Your task to perform on an android device: turn off smart reply in the gmail app Image 0: 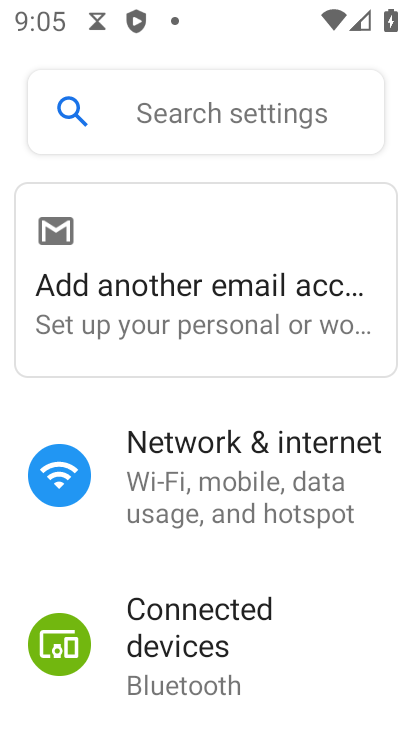
Step 0: drag from (208, 561) to (213, 218)
Your task to perform on an android device: turn off smart reply in the gmail app Image 1: 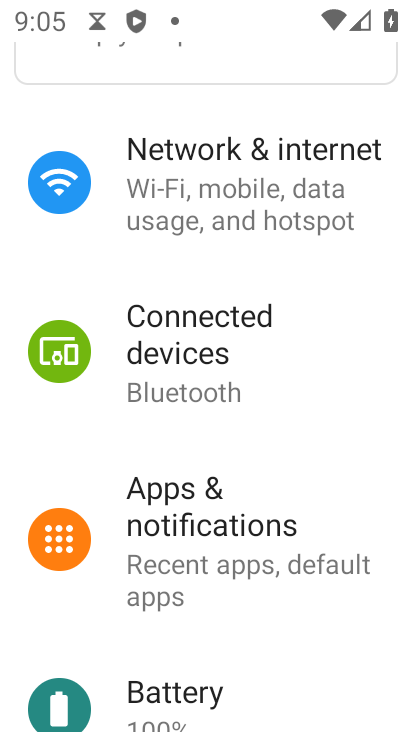
Step 1: drag from (213, 492) to (138, 34)
Your task to perform on an android device: turn off smart reply in the gmail app Image 2: 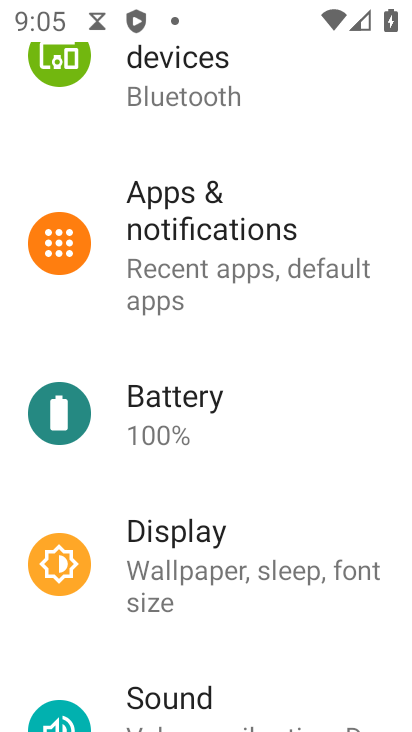
Step 2: drag from (270, 561) to (258, 98)
Your task to perform on an android device: turn off smart reply in the gmail app Image 3: 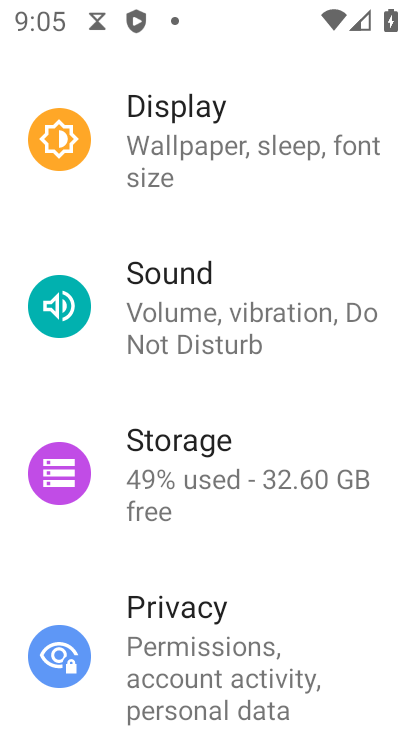
Step 3: drag from (245, 467) to (245, 41)
Your task to perform on an android device: turn off smart reply in the gmail app Image 4: 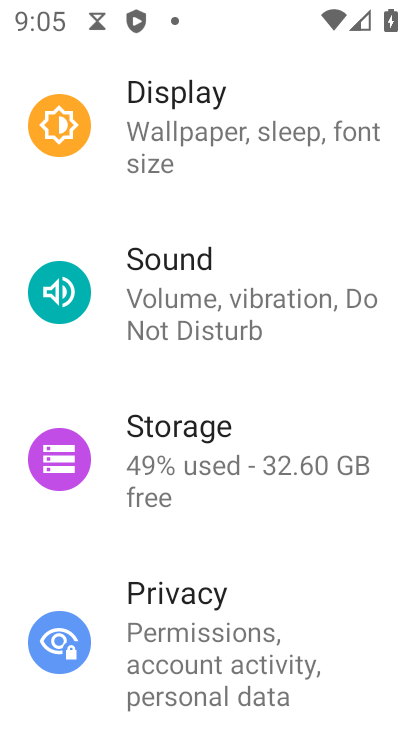
Step 4: press back button
Your task to perform on an android device: turn off smart reply in the gmail app Image 5: 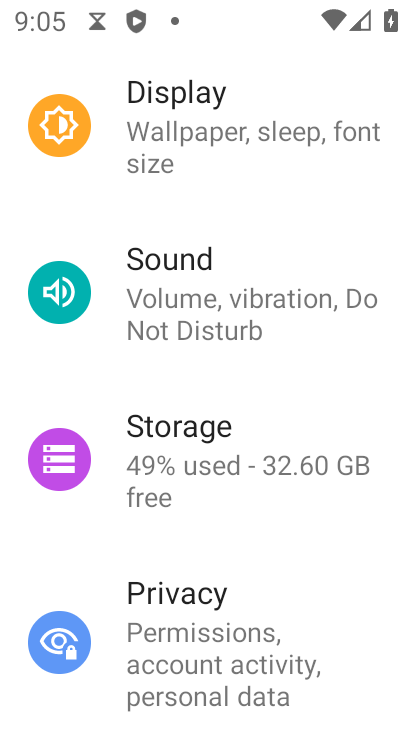
Step 5: press back button
Your task to perform on an android device: turn off smart reply in the gmail app Image 6: 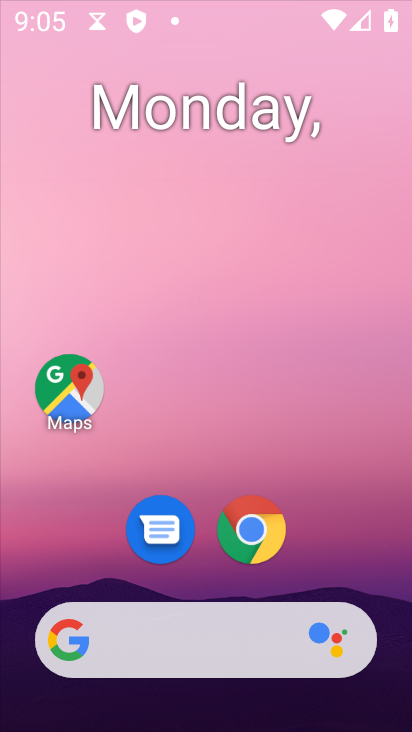
Step 6: press back button
Your task to perform on an android device: turn off smart reply in the gmail app Image 7: 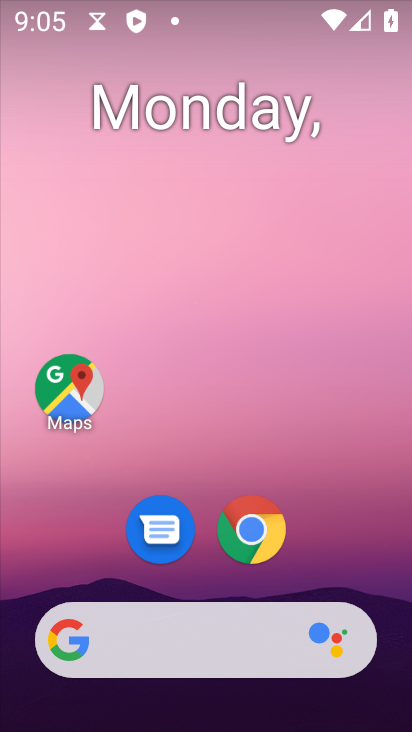
Step 7: drag from (214, 529) to (240, 351)
Your task to perform on an android device: turn off smart reply in the gmail app Image 8: 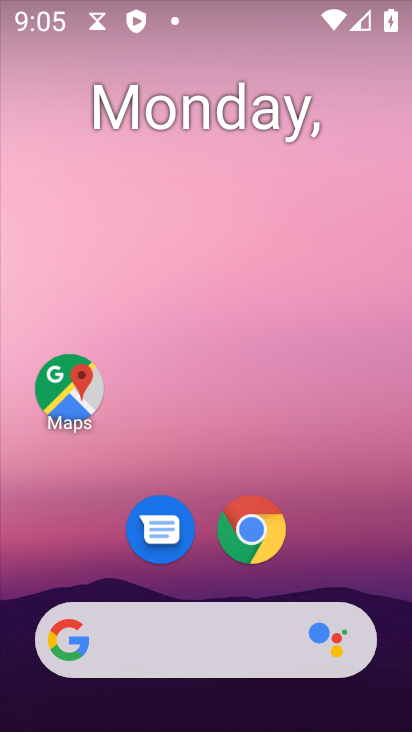
Step 8: drag from (290, 509) to (246, 342)
Your task to perform on an android device: turn off smart reply in the gmail app Image 9: 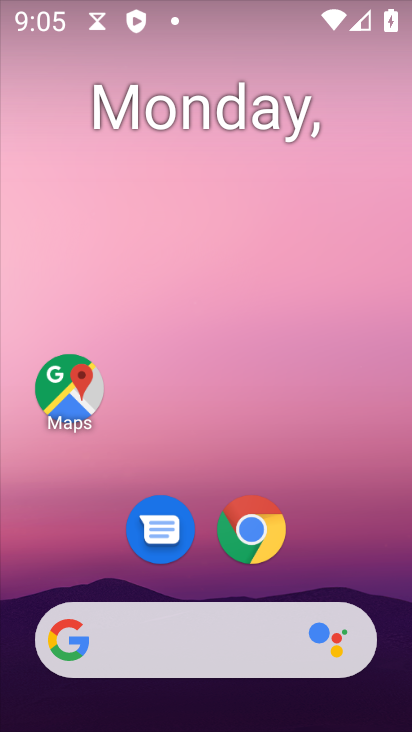
Step 9: drag from (199, 457) to (199, 150)
Your task to perform on an android device: turn off smart reply in the gmail app Image 10: 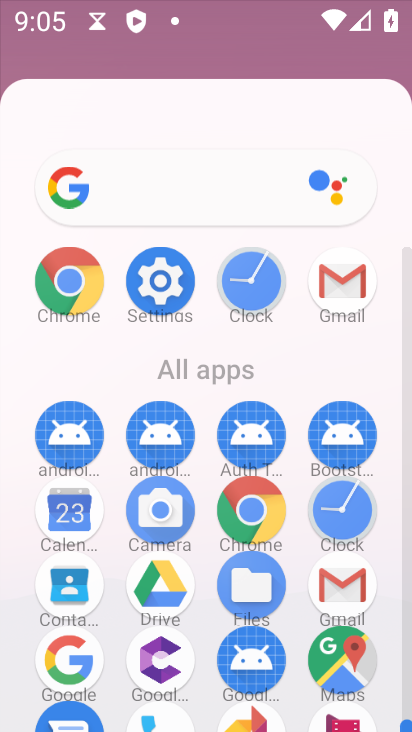
Step 10: drag from (222, 621) to (165, 260)
Your task to perform on an android device: turn off smart reply in the gmail app Image 11: 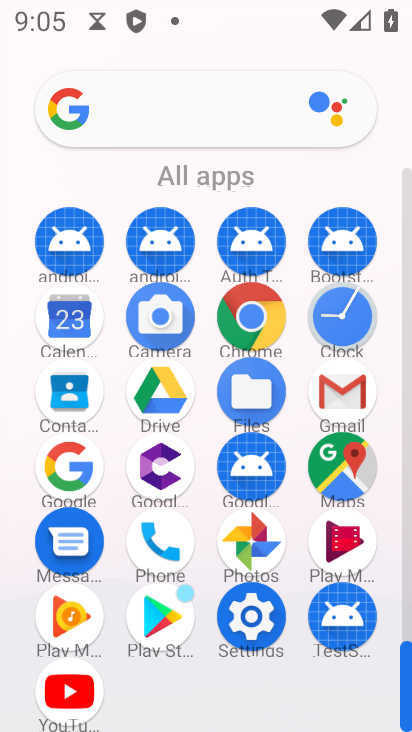
Step 11: click (328, 401)
Your task to perform on an android device: turn off smart reply in the gmail app Image 12: 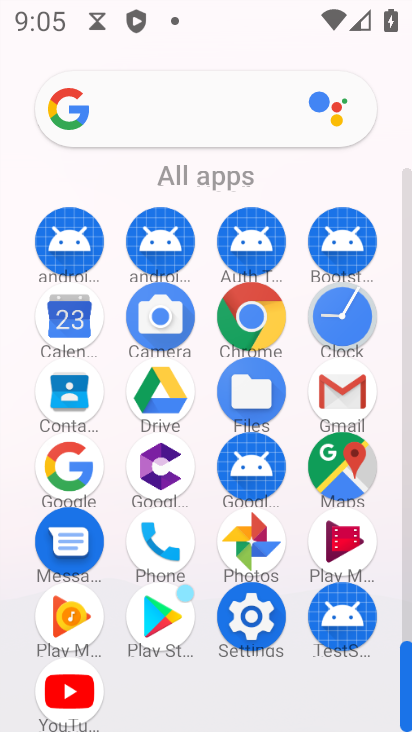
Step 12: click (328, 401)
Your task to perform on an android device: turn off smart reply in the gmail app Image 13: 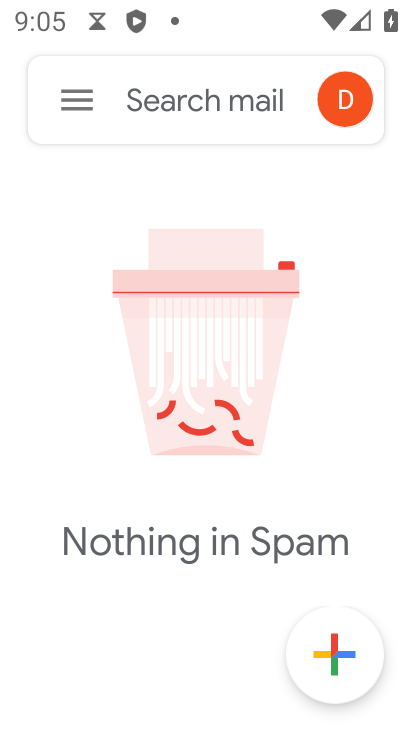
Step 13: click (74, 88)
Your task to perform on an android device: turn off smart reply in the gmail app Image 14: 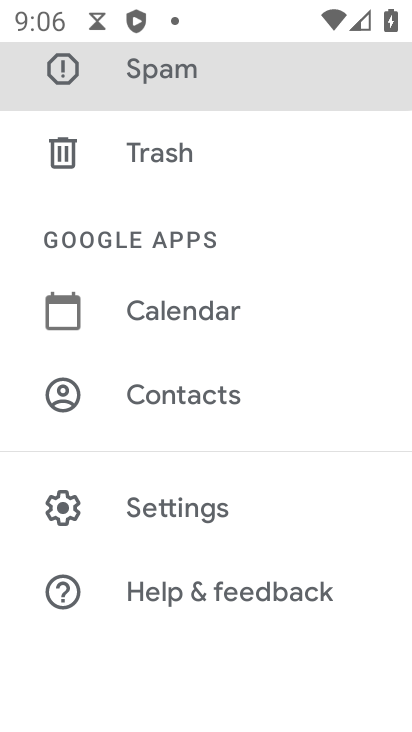
Step 14: press home button
Your task to perform on an android device: turn off smart reply in the gmail app Image 15: 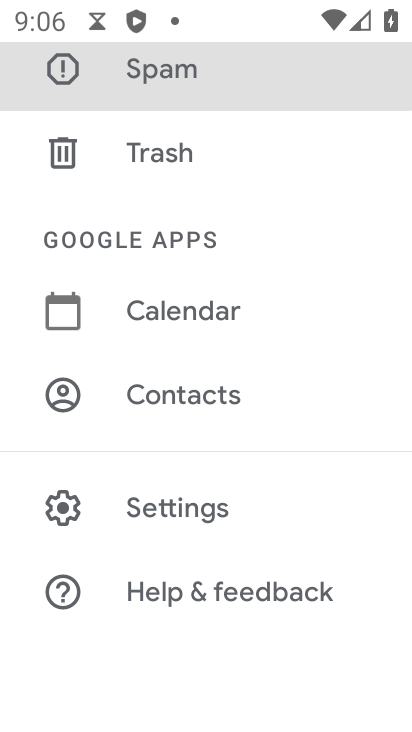
Step 15: press home button
Your task to perform on an android device: turn off smart reply in the gmail app Image 16: 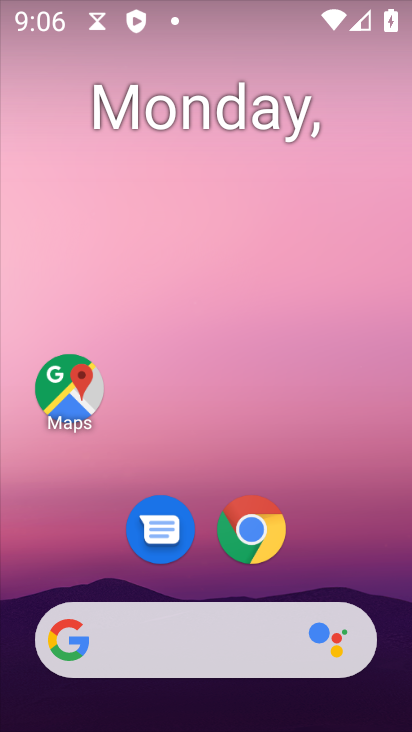
Step 16: drag from (197, 579) to (195, 157)
Your task to perform on an android device: turn off smart reply in the gmail app Image 17: 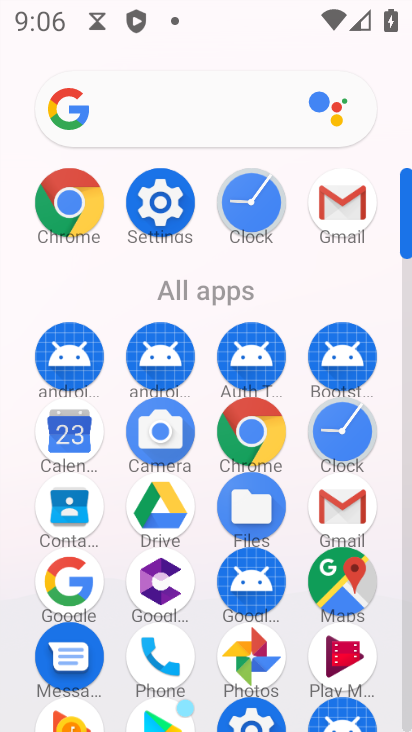
Step 17: click (323, 504)
Your task to perform on an android device: turn off smart reply in the gmail app Image 18: 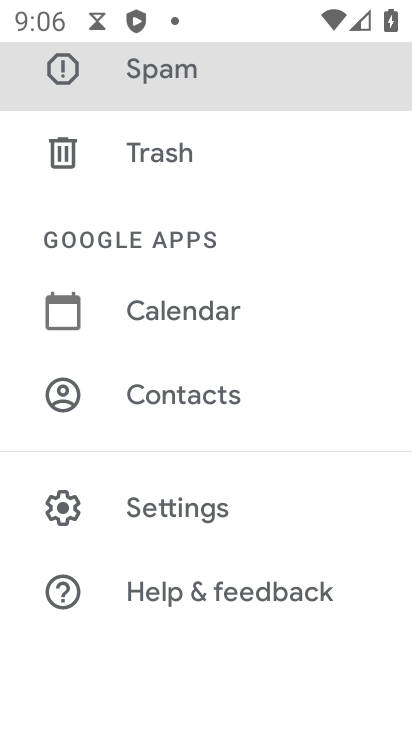
Step 18: drag from (179, 221) to (205, 394)
Your task to perform on an android device: turn off smart reply in the gmail app Image 19: 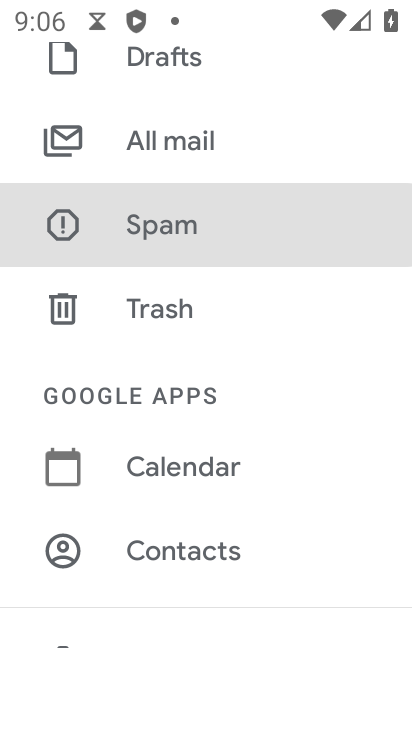
Step 19: drag from (183, 185) to (242, 442)
Your task to perform on an android device: turn off smart reply in the gmail app Image 20: 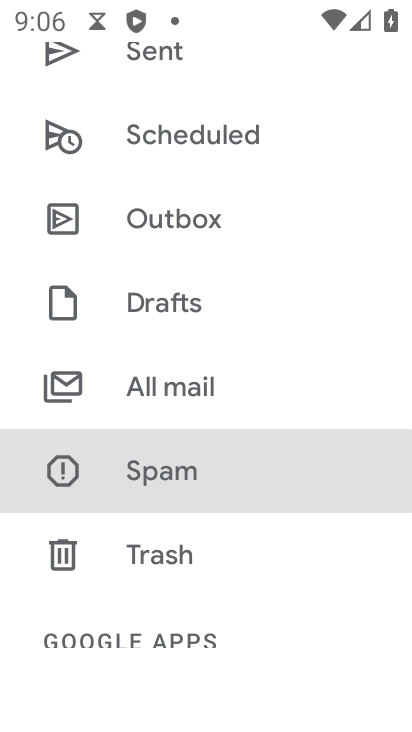
Step 20: drag from (201, 252) to (211, 566)
Your task to perform on an android device: turn off smart reply in the gmail app Image 21: 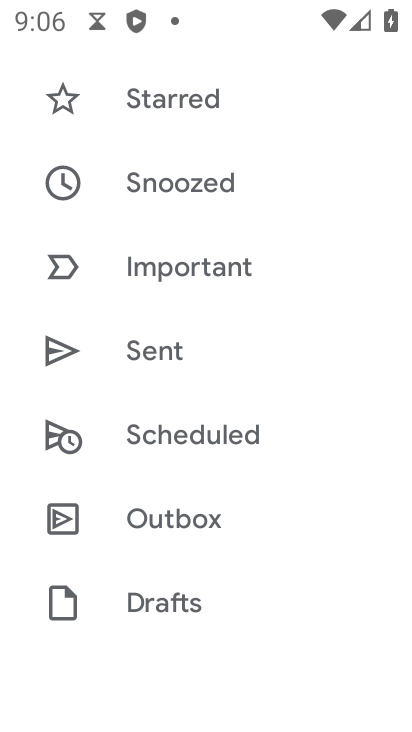
Step 21: drag from (167, 284) to (266, 731)
Your task to perform on an android device: turn off smart reply in the gmail app Image 22: 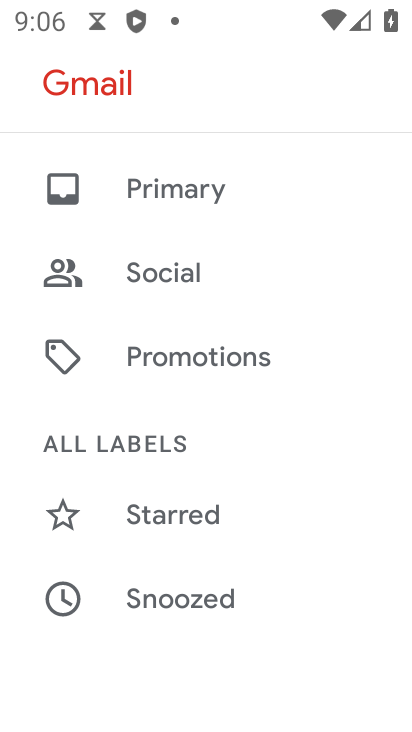
Step 22: drag from (196, 206) to (193, 578)
Your task to perform on an android device: turn off smart reply in the gmail app Image 23: 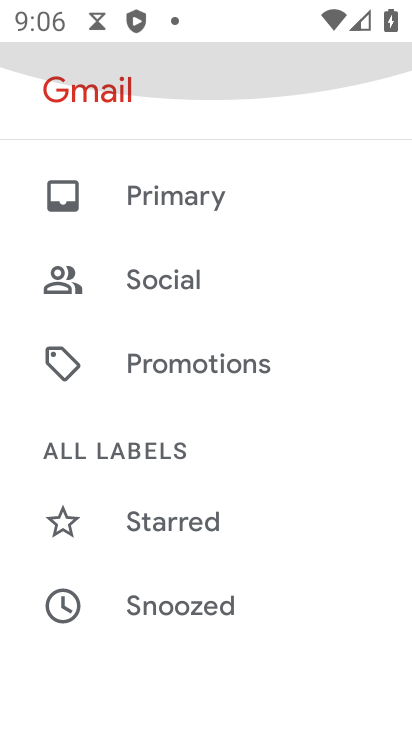
Step 23: drag from (150, 248) to (183, 560)
Your task to perform on an android device: turn off smart reply in the gmail app Image 24: 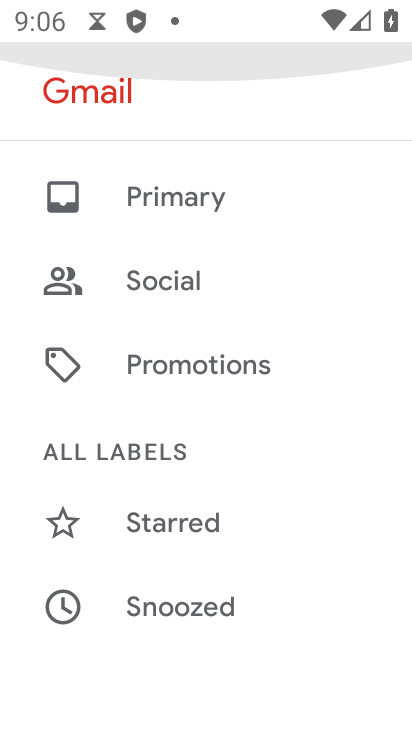
Step 24: drag from (160, 225) to (177, 632)
Your task to perform on an android device: turn off smart reply in the gmail app Image 25: 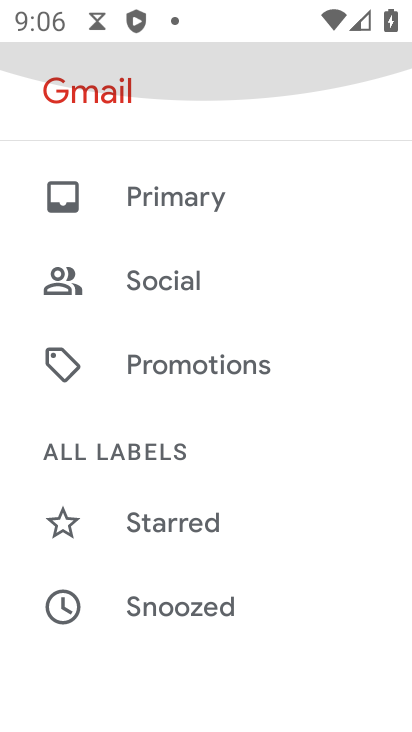
Step 25: drag from (108, 585) to (132, 237)
Your task to perform on an android device: turn off smart reply in the gmail app Image 26: 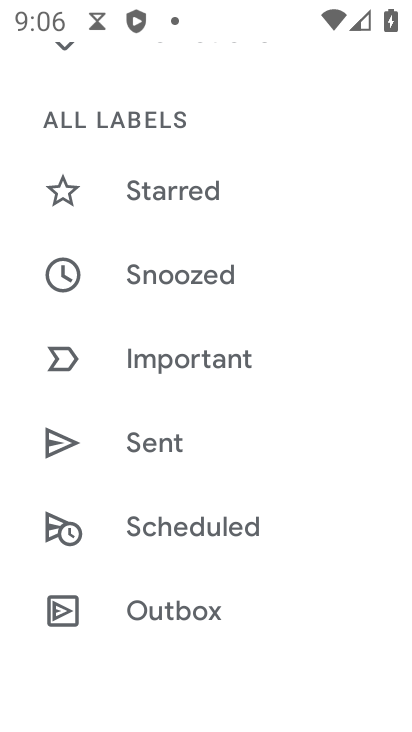
Step 26: drag from (244, 475) to (240, 115)
Your task to perform on an android device: turn off smart reply in the gmail app Image 27: 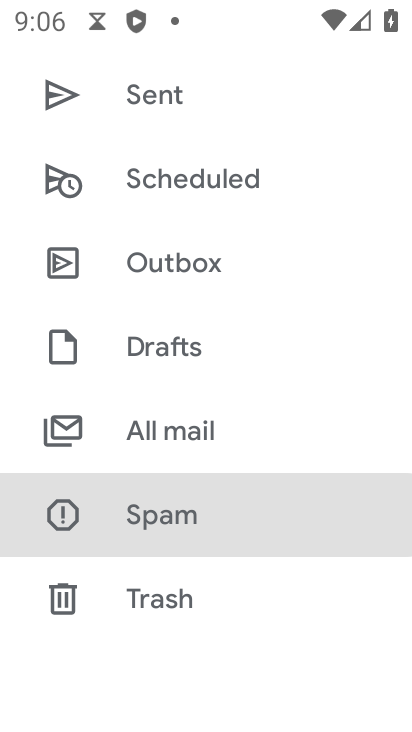
Step 27: drag from (191, 504) to (172, 109)
Your task to perform on an android device: turn off smart reply in the gmail app Image 28: 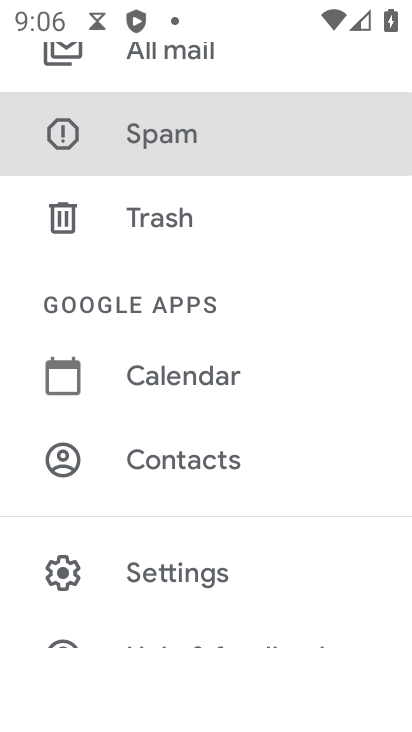
Step 28: click (204, 397)
Your task to perform on an android device: turn off smart reply in the gmail app Image 29: 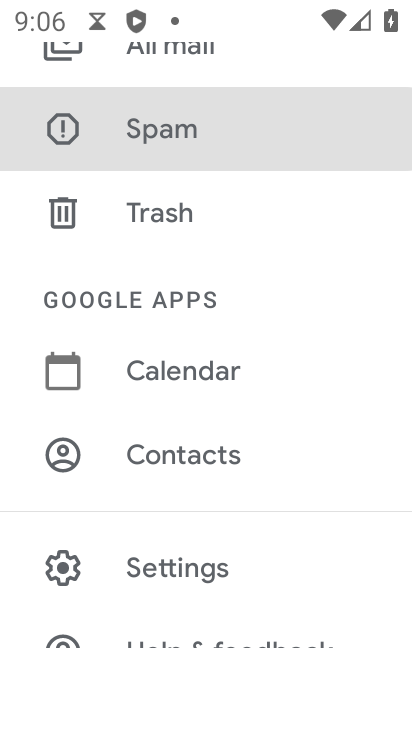
Step 29: drag from (182, 155) to (209, 464)
Your task to perform on an android device: turn off smart reply in the gmail app Image 30: 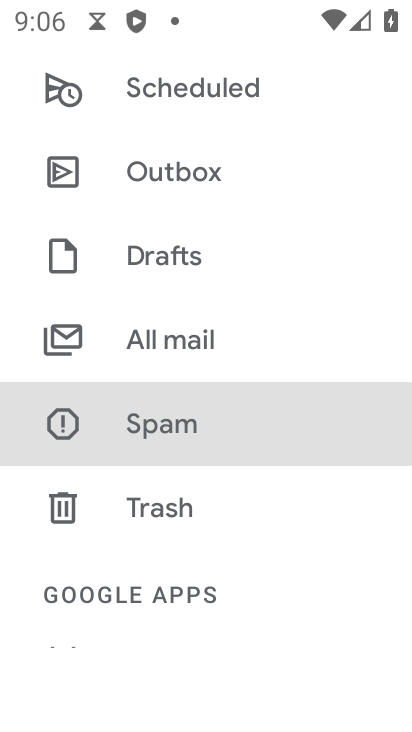
Step 30: click (161, 364)
Your task to perform on an android device: turn off smart reply in the gmail app Image 31: 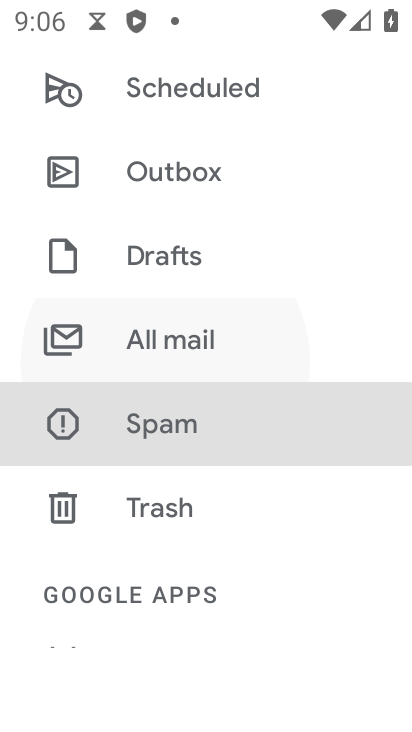
Step 31: click (162, 349)
Your task to perform on an android device: turn off smart reply in the gmail app Image 32: 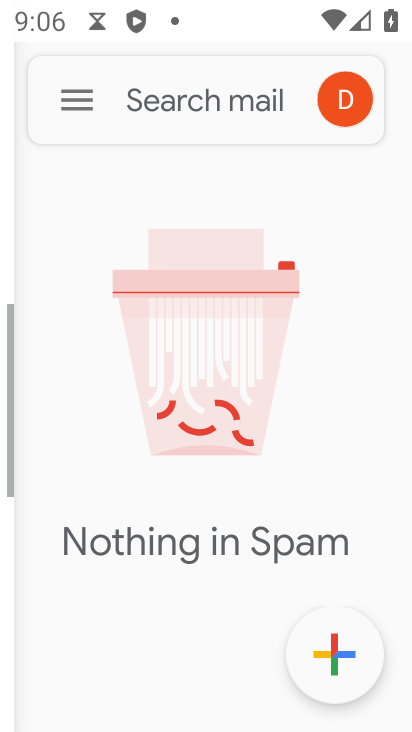
Step 32: click (166, 347)
Your task to perform on an android device: turn off smart reply in the gmail app Image 33: 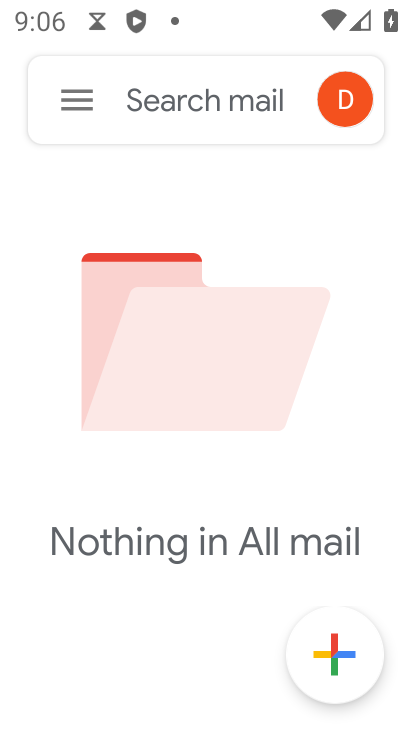
Step 33: click (73, 113)
Your task to perform on an android device: turn off smart reply in the gmail app Image 34: 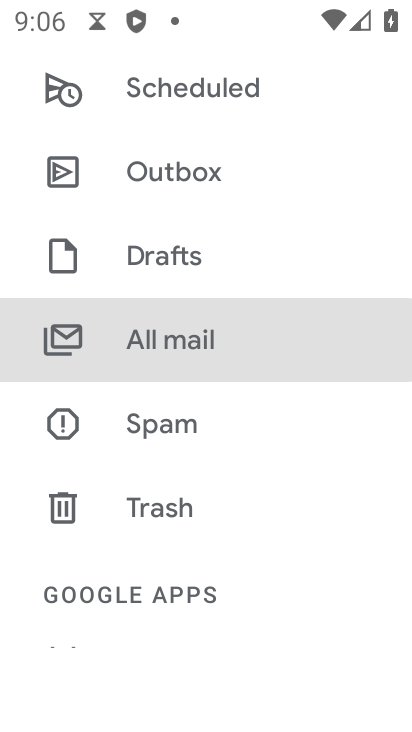
Step 34: drag from (156, 535) to (139, 257)
Your task to perform on an android device: turn off smart reply in the gmail app Image 35: 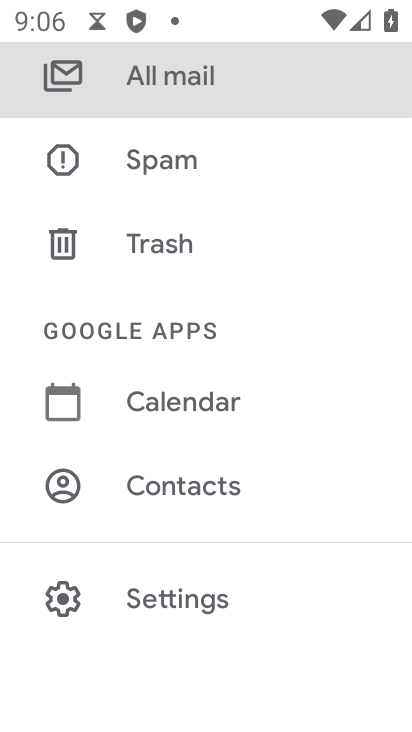
Step 35: click (194, 595)
Your task to perform on an android device: turn off smart reply in the gmail app Image 36: 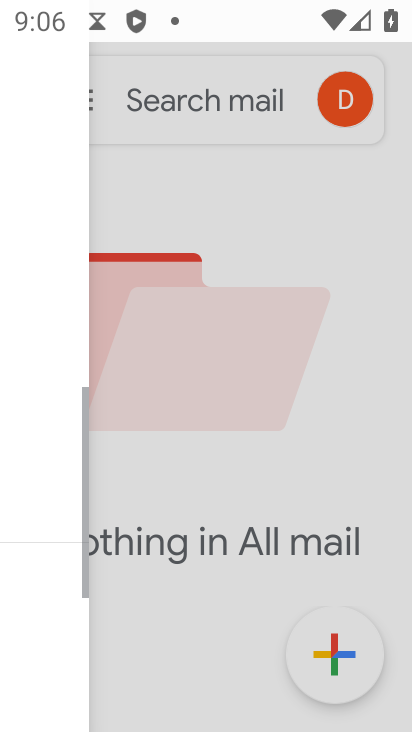
Step 36: click (194, 595)
Your task to perform on an android device: turn off smart reply in the gmail app Image 37: 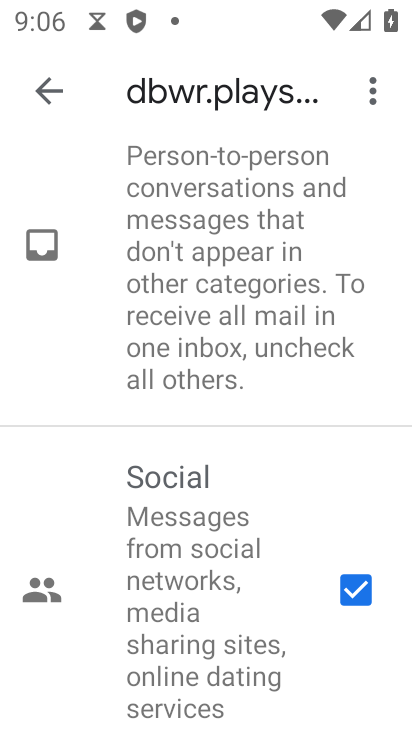
Step 37: drag from (220, 518) to (197, 8)
Your task to perform on an android device: turn off smart reply in the gmail app Image 38: 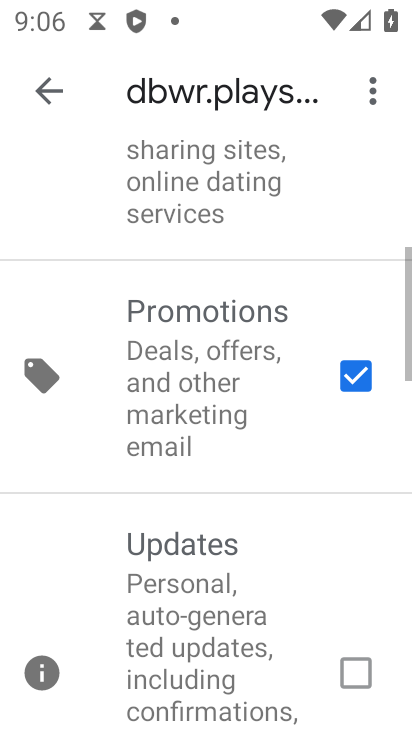
Step 38: drag from (147, 486) to (136, 187)
Your task to perform on an android device: turn off smart reply in the gmail app Image 39: 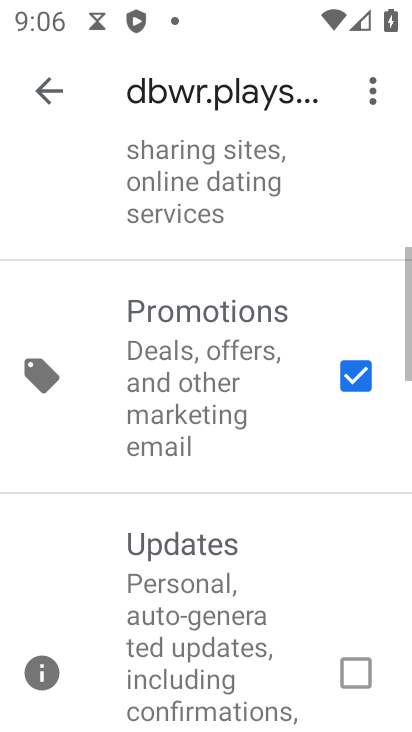
Step 39: drag from (200, 500) to (193, 71)
Your task to perform on an android device: turn off smart reply in the gmail app Image 40: 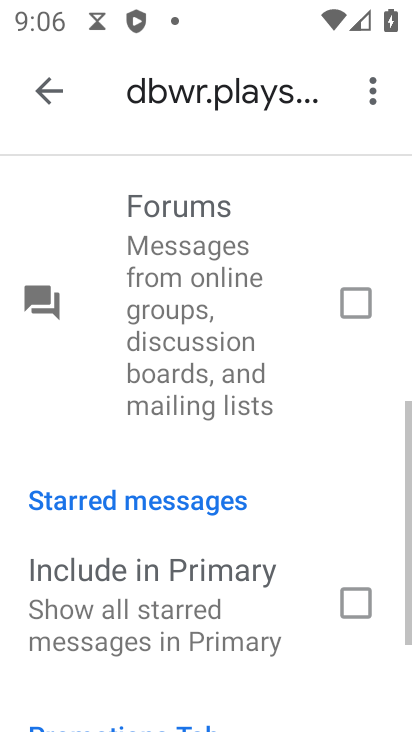
Step 40: drag from (200, 544) to (190, 123)
Your task to perform on an android device: turn off smart reply in the gmail app Image 41: 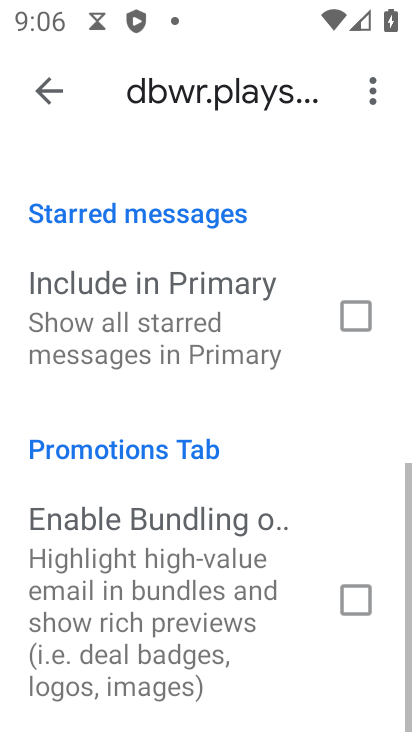
Step 41: drag from (183, 487) to (181, 102)
Your task to perform on an android device: turn off smart reply in the gmail app Image 42: 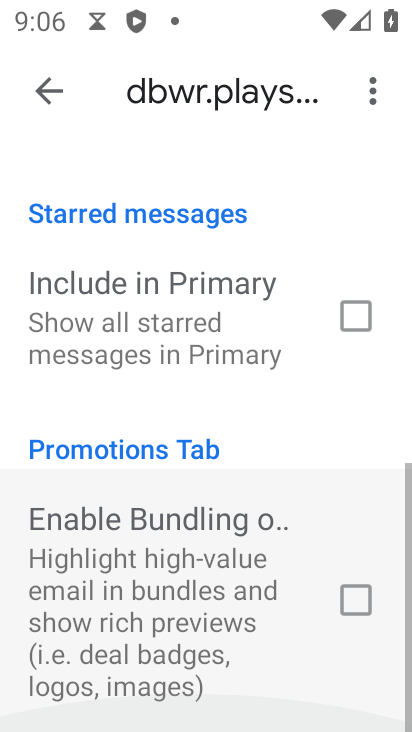
Step 42: drag from (202, 440) to (239, 193)
Your task to perform on an android device: turn off smart reply in the gmail app Image 43: 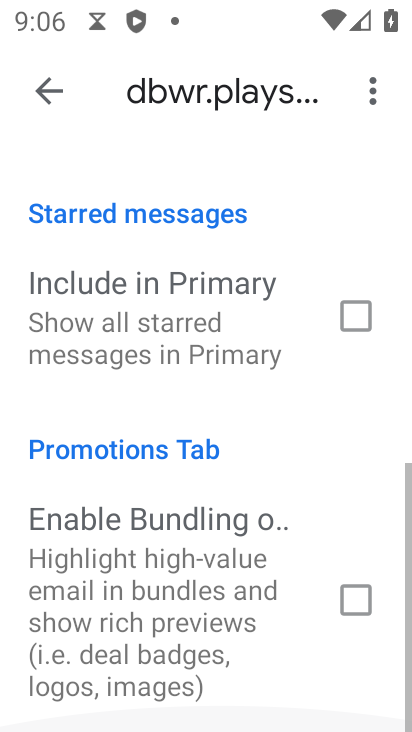
Step 43: drag from (184, 390) to (103, 128)
Your task to perform on an android device: turn off smart reply in the gmail app Image 44: 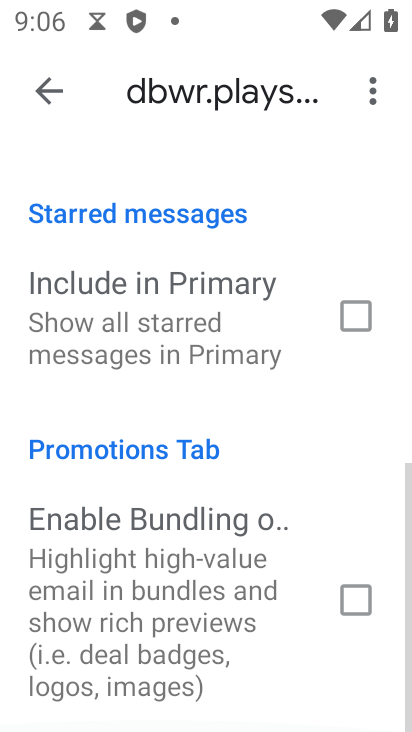
Step 44: click (45, 85)
Your task to perform on an android device: turn off smart reply in the gmail app Image 45: 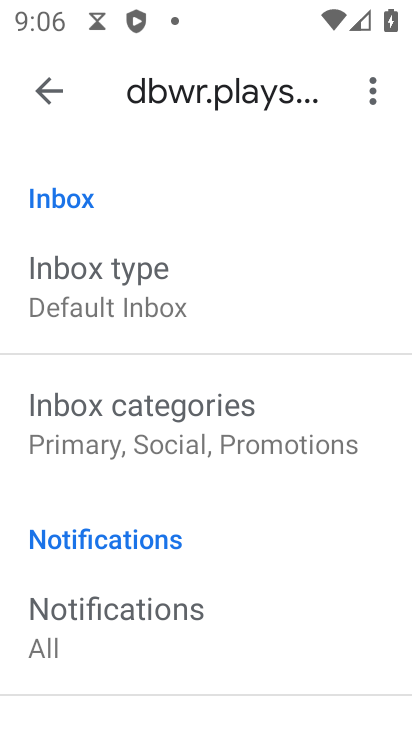
Step 45: drag from (151, 509) to (132, 250)
Your task to perform on an android device: turn off smart reply in the gmail app Image 46: 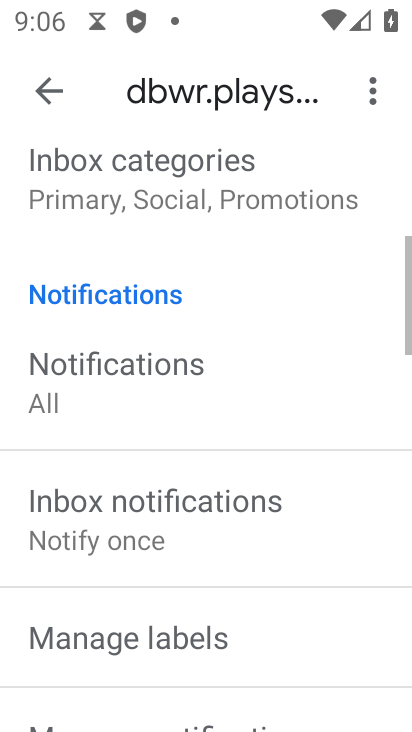
Step 46: drag from (123, 451) to (99, 170)
Your task to perform on an android device: turn off smart reply in the gmail app Image 47: 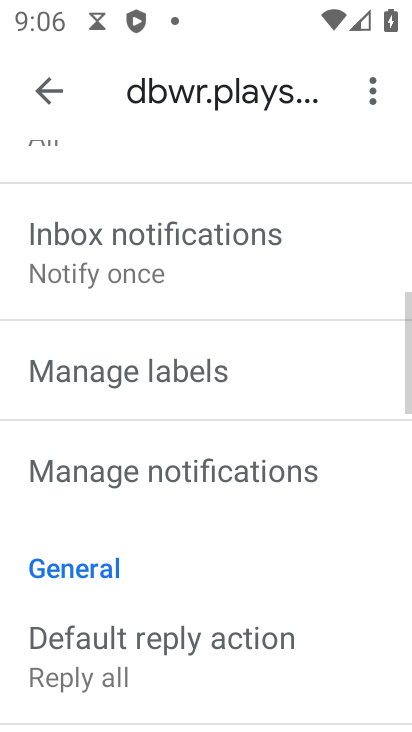
Step 47: drag from (125, 381) to (125, 211)
Your task to perform on an android device: turn off smart reply in the gmail app Image 48: 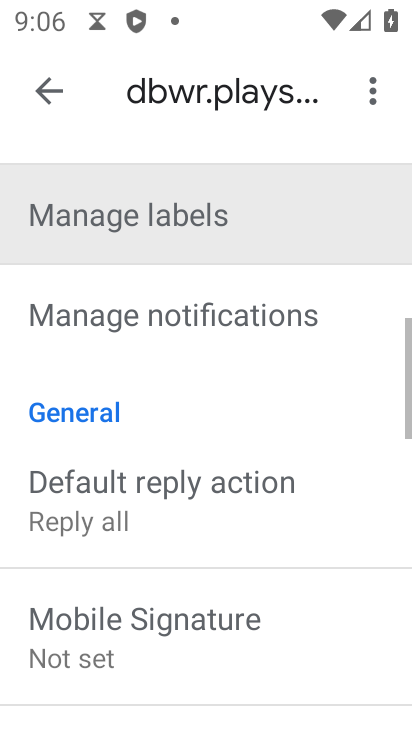
Step 48: drag from (117, 477) to (99, 193)
Your task to perform on an android device: turn off smart reply in the gmail app Image 49: 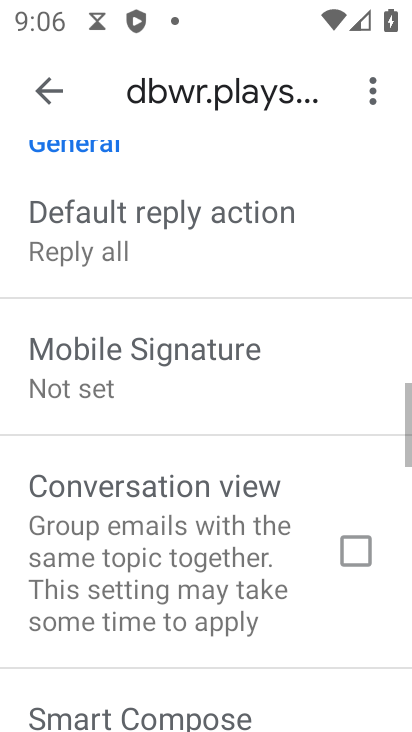
Step 49: drag from (111, 532) to (111, 239)
Your task to perform on an android device: turn off smart reply in the gmail app Image 50: 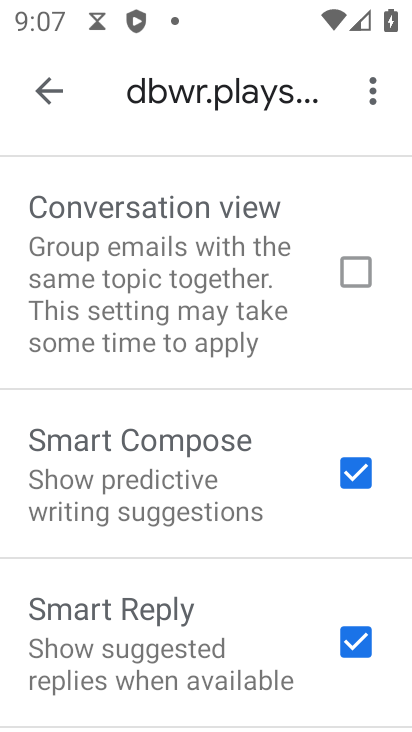
Step 50: click (167, 221)
Your task to perform on an android device: turn off smart reply in the gmail app Image 51: 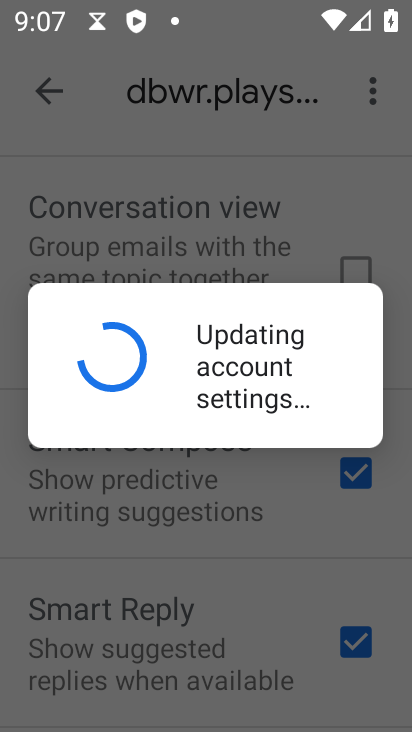
Step 51: click (328, 643)
Your task to perform on an android device: turn off smart reply in the gmail app Image 52: 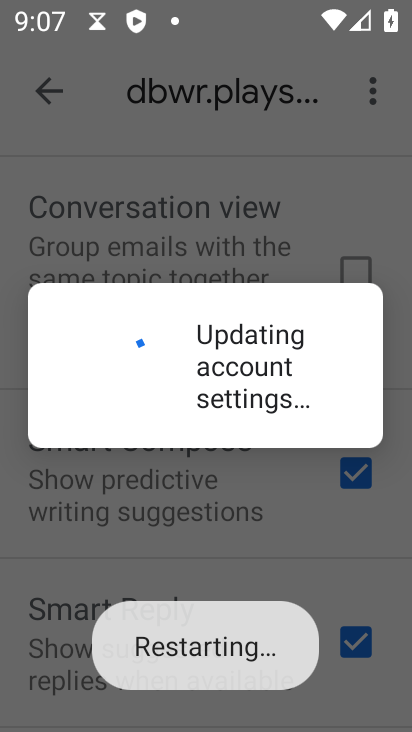
Step 52: click (339, 640)
Your task to perform on an android device: turn off smart reply in the gmail app Image 53: 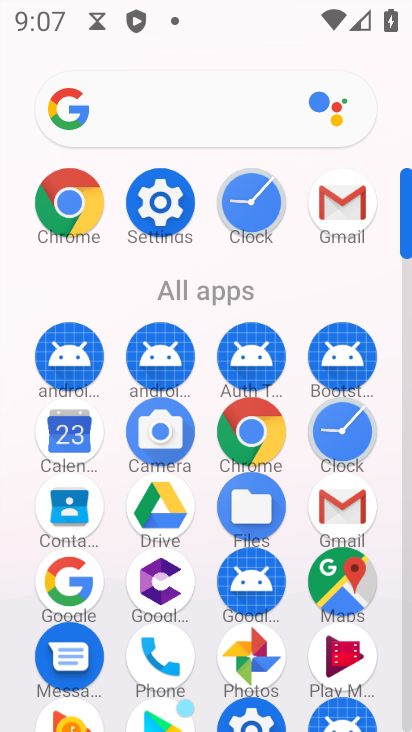
Step 53: click (341, 639)
Your task to perform on an android device: turn off smart reply in the gmail app Image 54: 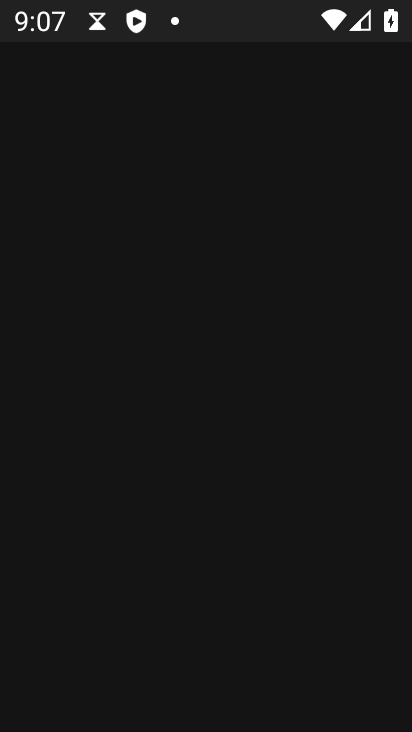
Step 54: task complete